Your task to perform on an android device: turn on bluetooth scan Image 0: 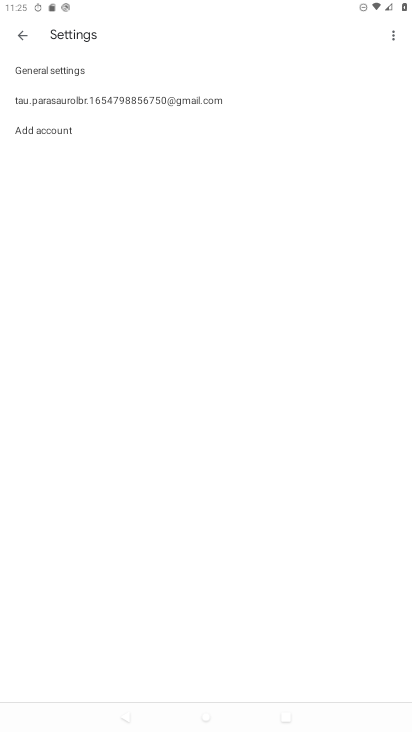
Step 0: press home button
Your task to perform on an android device: turn on bluetooth scan Image 1: 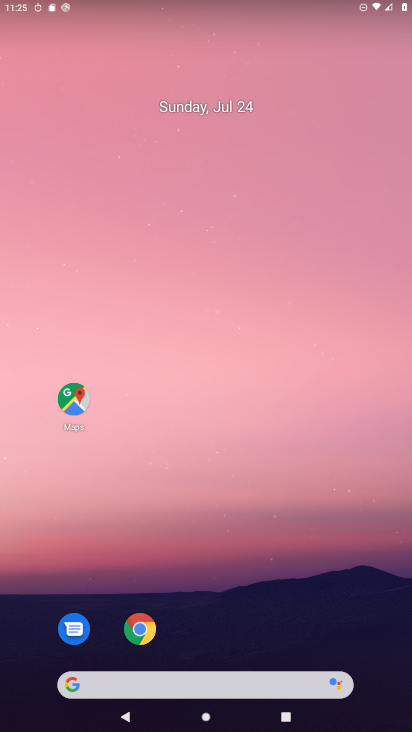
Step 1: drag from (232, 605) to (400, 37)
Your task to perform on an android device: turn on bluetooth scan Image 2: 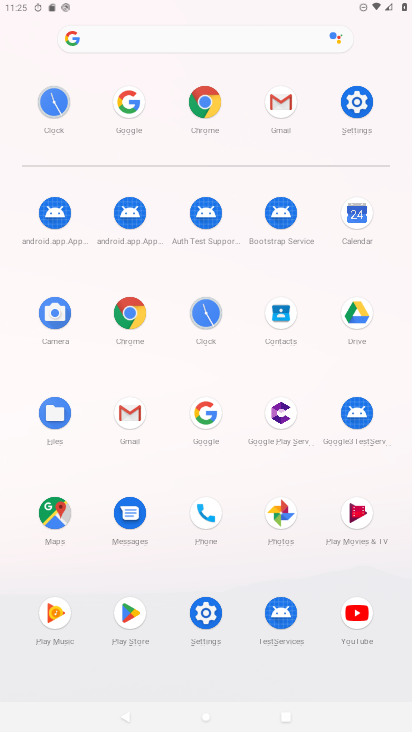
Step 2: click (362, 109)
Your task to perform on an android device: turn on bluetooth scan Image 3: 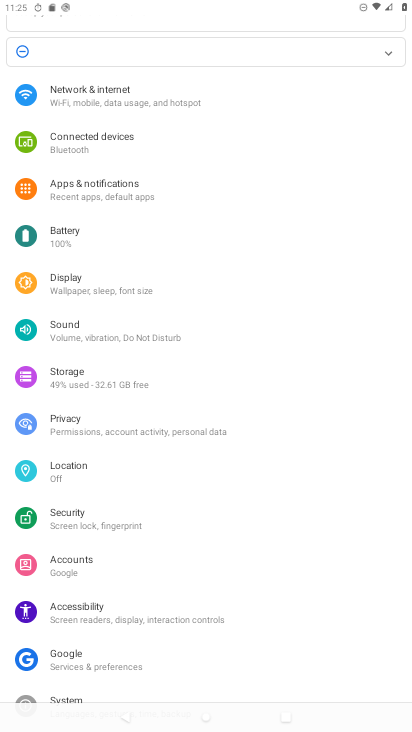
Step 3: drag from (160, 413) to (125, 554)
Your task to perform on an android device: turn on bluetooth scan Image 4: 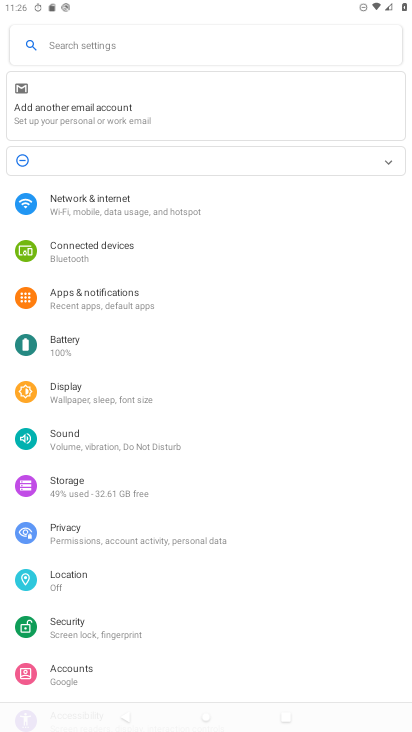
Step 4: click (138, 258)
Your task to perform on an android device: turn on bluetooth scan Image 5: 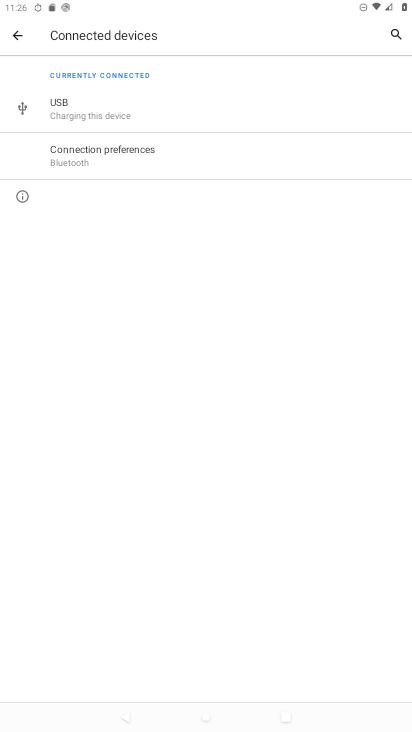
Step 5: click (86, 154)
Your task to perform on an android device: turn on bluetooth scan Image 6: 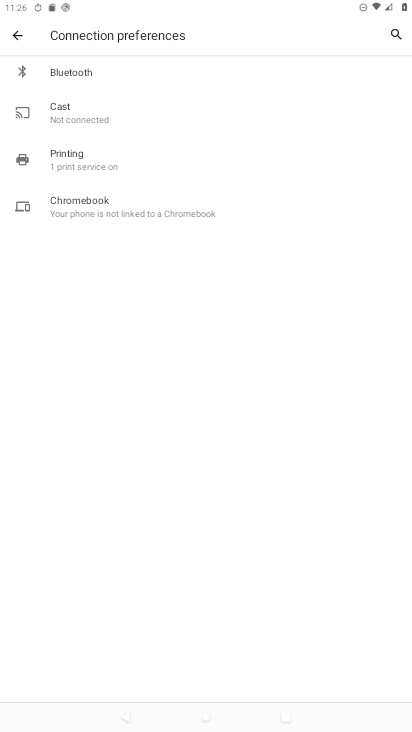
Step 6: click (119, 74)
Your task to perform on an android device: turn on bluetooth scan Image 7: 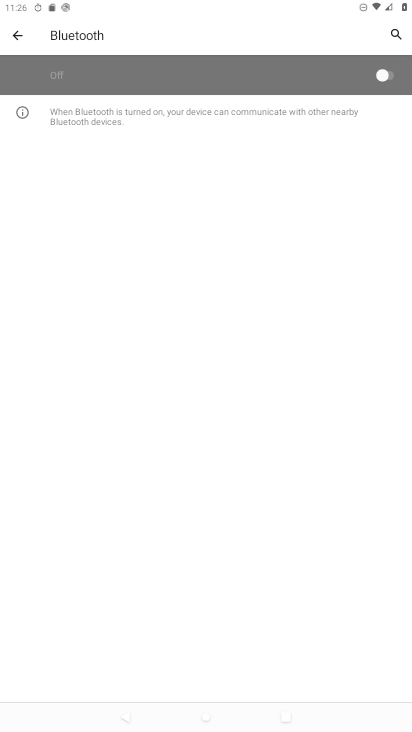
Step 7: click (103, 76)
Your task to perform on an android device: turn on bluetooth scan Image 8: 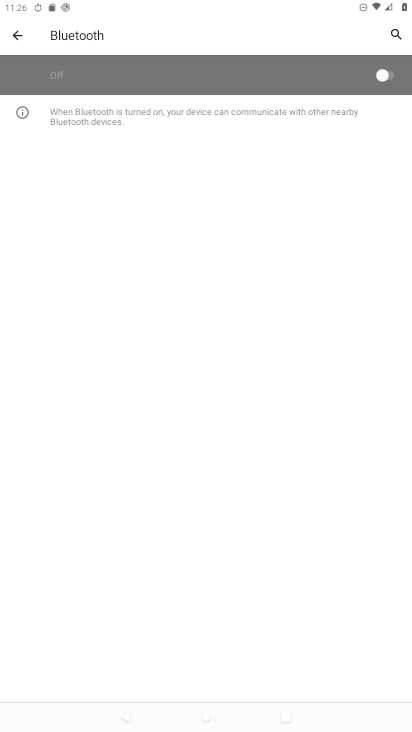
Step 8: task complete